Your task to perform on an android device: Open internet settings Image 0: 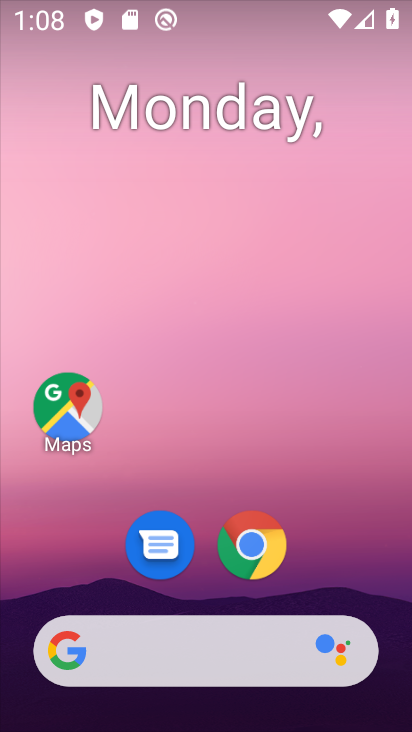
Step 0: drag from (221, 720) to (206, 86)
Your task to perform on an android device: Open internet settings Image 1: 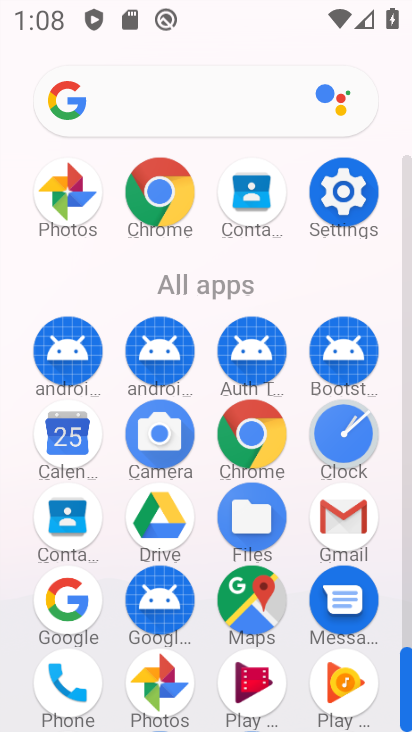
Step 1: click (337, 188)
Your task to perform on an android device: Open internet settings Image 2: 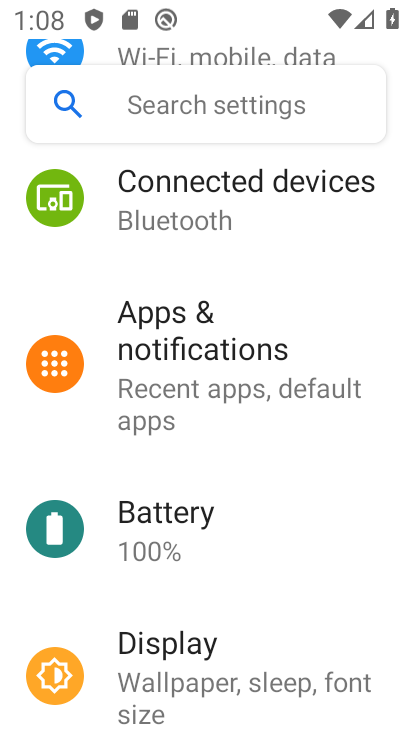
Step 2: drag from (281, 241) to (273, 588)
Your task to perform on an android device: Open internet settings Image 3: 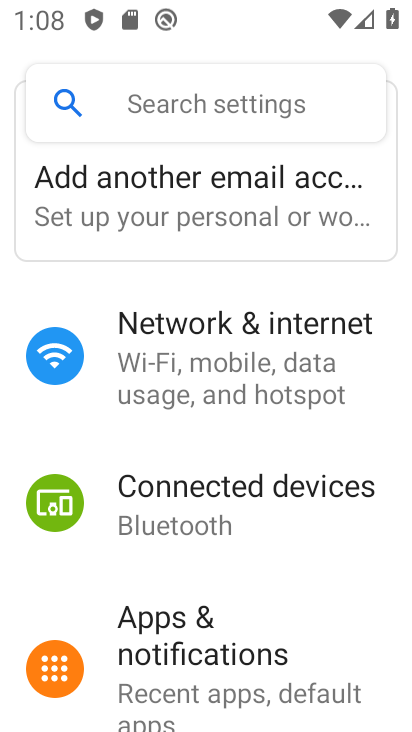
Step 3: click (211, 367)
Your task to perform on an android device: Open internet settings Image 4: 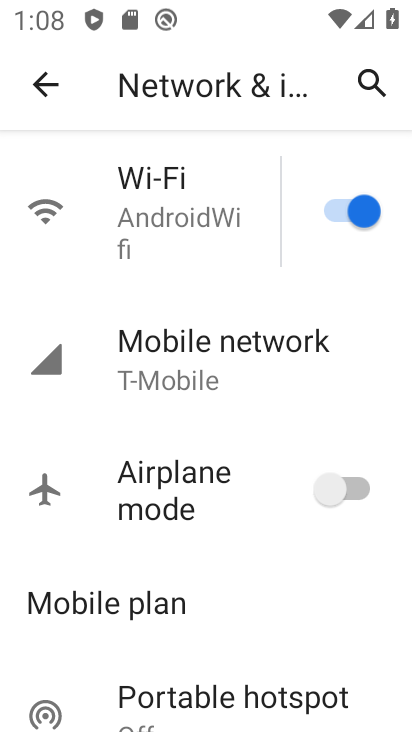
Step 4: task complete